Your task to perform on an android device: turn on data saver in the chrome app Image 0: 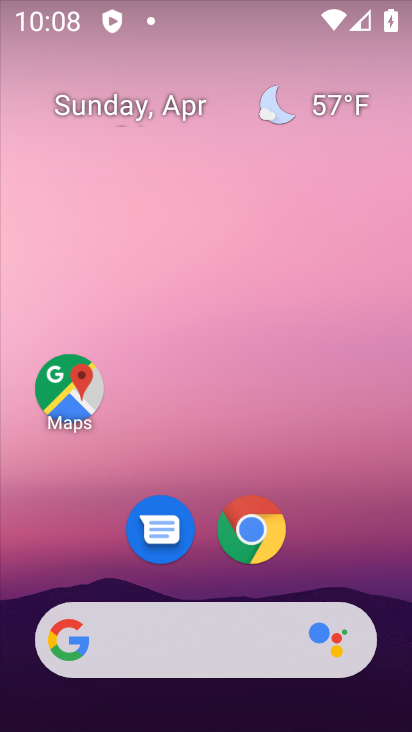
Step 0: click (256, 539)
Your task to perform on an android device: turn on data saver in the chrome app Image 1: 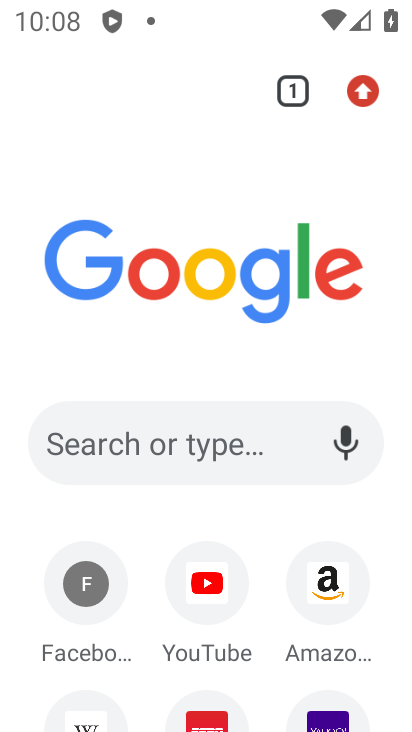
Step 1: click (368, 80)
Your task to perform on an android device: turn on data saver in the chrome app Image 2: 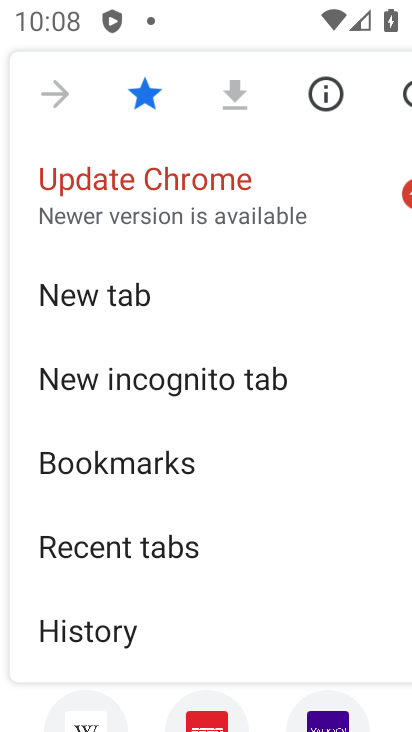
Step 2: drag from (229, 600) to (156, 106)
Your task to perform on an android device: turn on data saver in the chrome app Image 3: 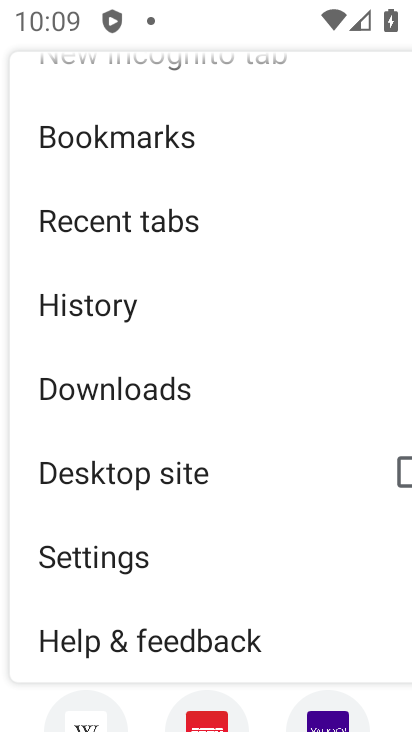
Step 3: click (125, 550)
Your task to perform on an android device: turn on data saver in the chrome app Image 4: 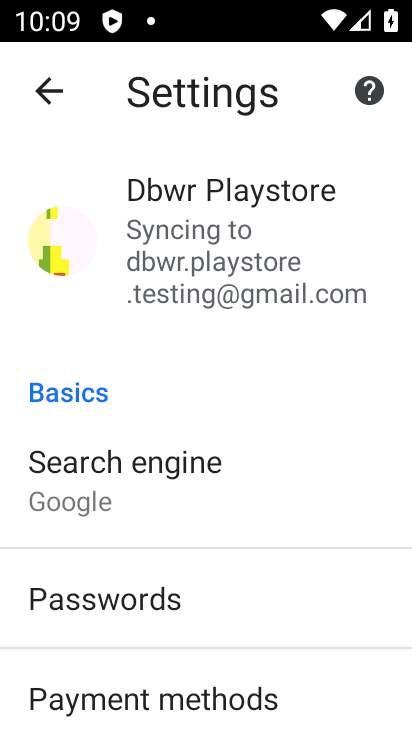
Step 4: drag from (241, 644) to (212, 209)
Your task to perform on an android device: turn on data saver in the chrome app Image 5: 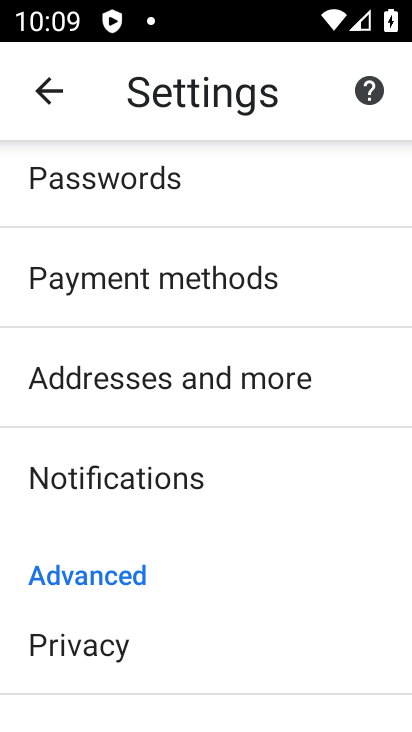
Step 5: drag from (189, 632) to (160, 222)
Your task to perform on an android device: turn on data saver in the chrome app Image 6: 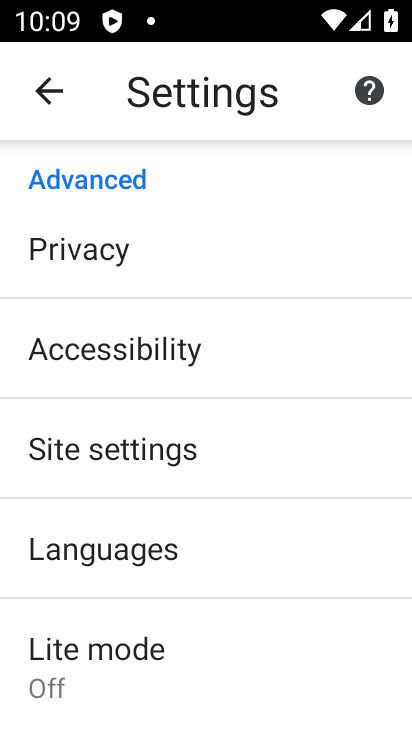
Step 6: click (112, 652)
Your task to perform on an android device: turn on data saver in the chrome app Image 7: 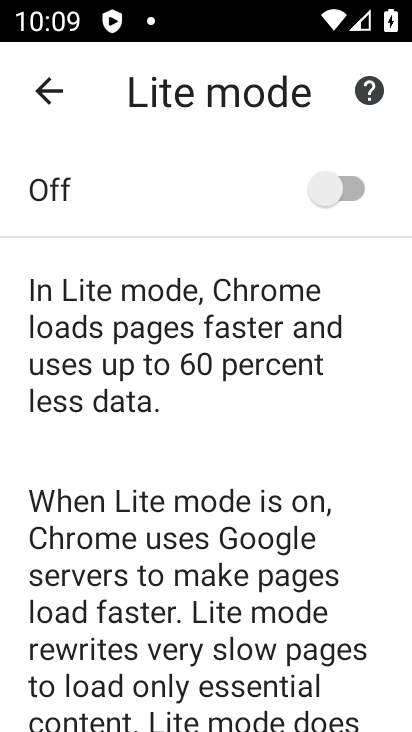
Step 7: click (337, 190)
Your task to perform on an android device: turn on data saver in the chrome app Image 8: 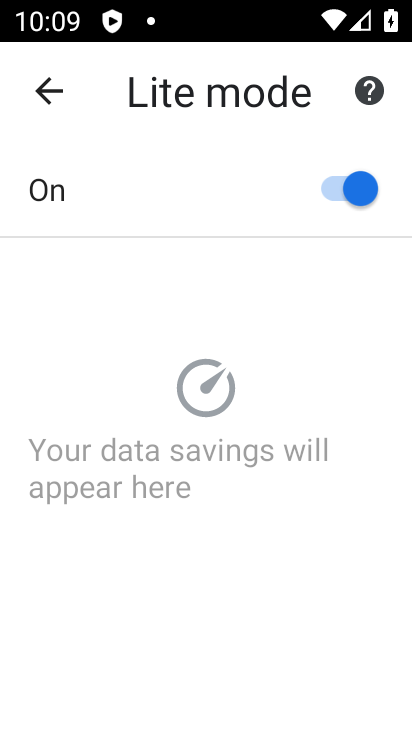
Step 8: task complete